Your task to perform on an android device: toggle translation in the chrome app Image 0: 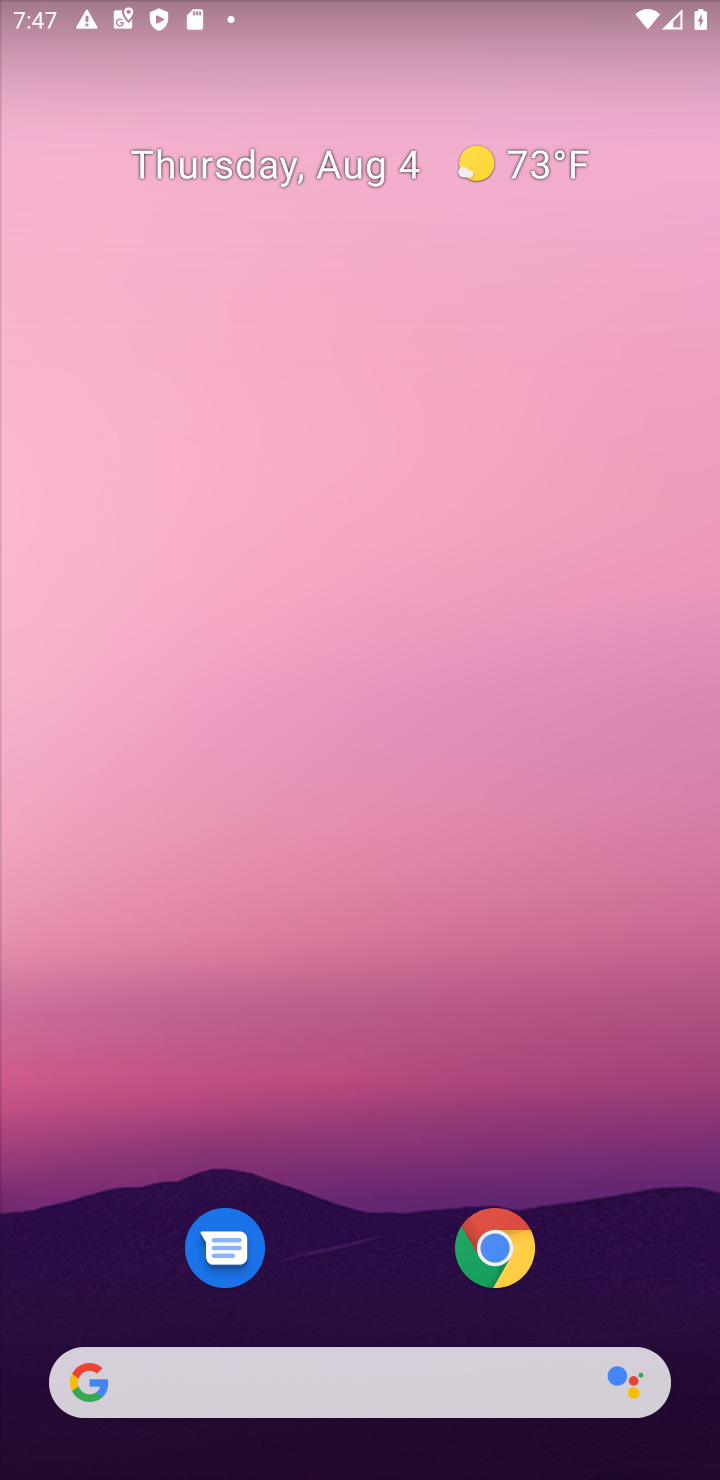
Step 0: press home button
Your task to perform on an android device: toggle translation in the chrome app Image 1: 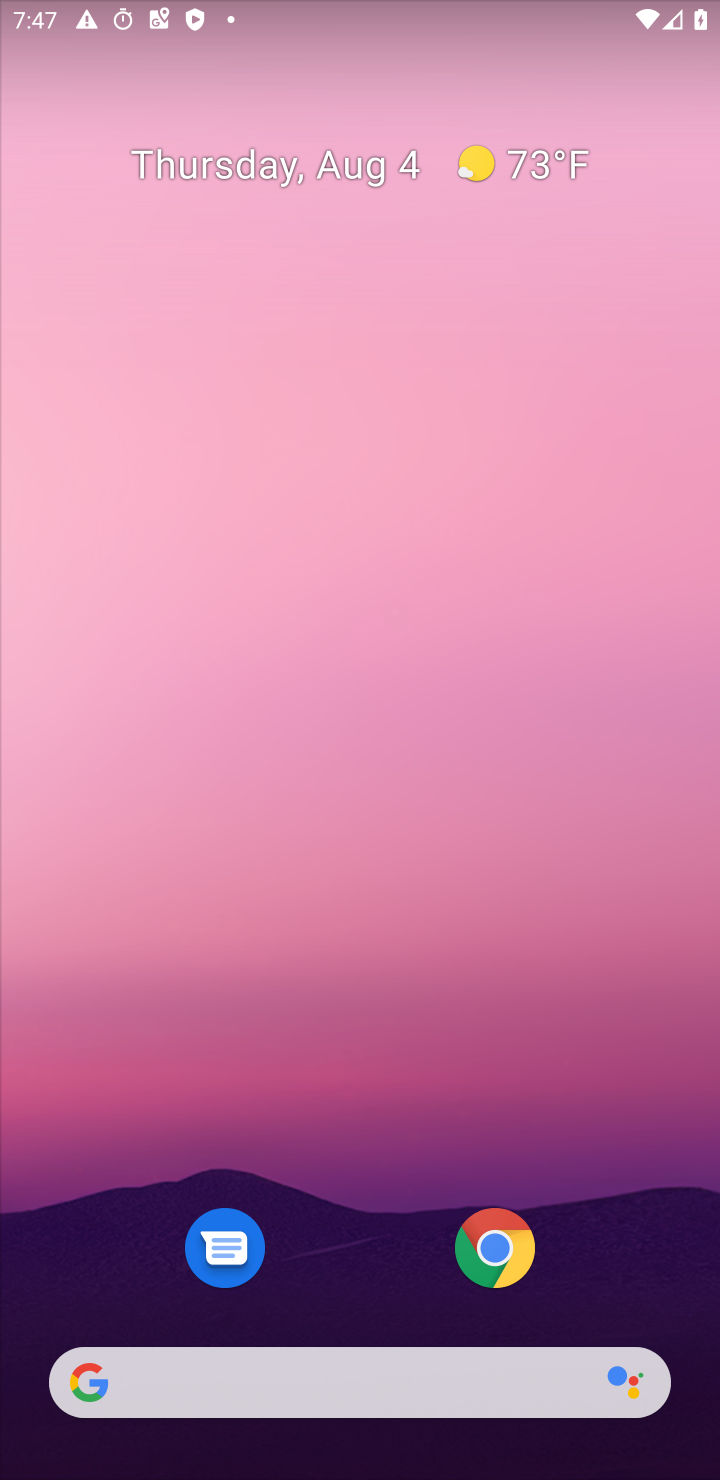
Step 1: drag from (368, 1393) to (307, 373)
Your task to perform on an android device: toggle translation in the chrome app Image 2: 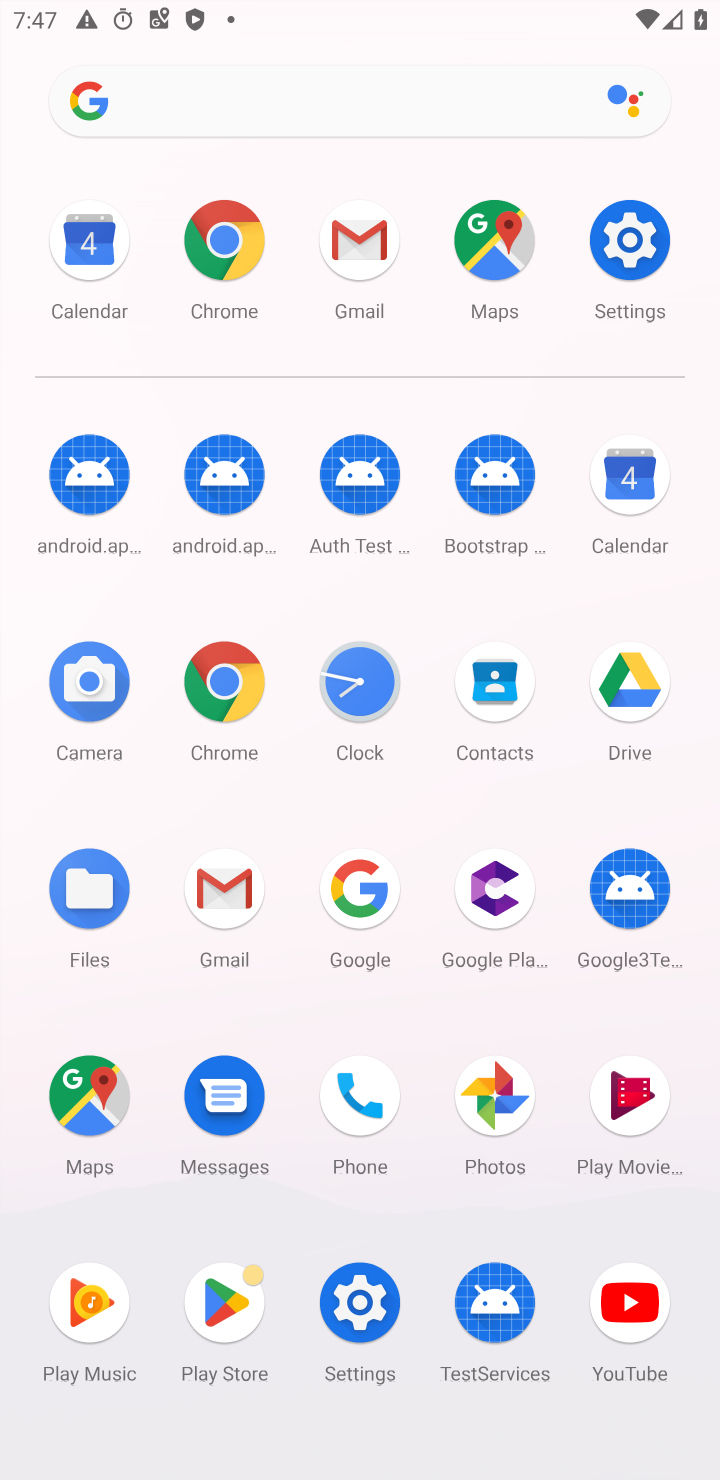
Step 2: click (239, 659)
Your task to perform on an android device: toggle translation in the chrome app Image 3: 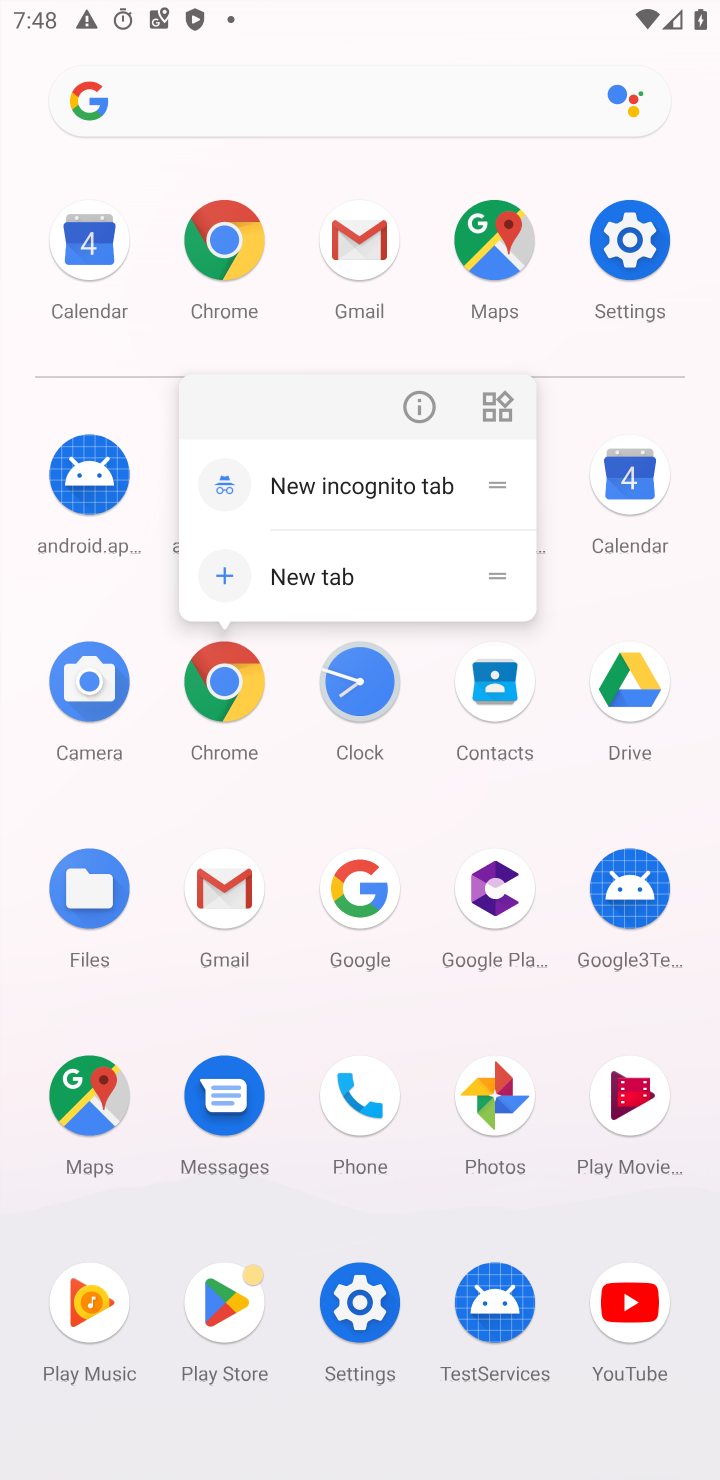
Step 3: click (237, 240)
Your task to perform on an android device: toggle translation in the chrome app Image 4: 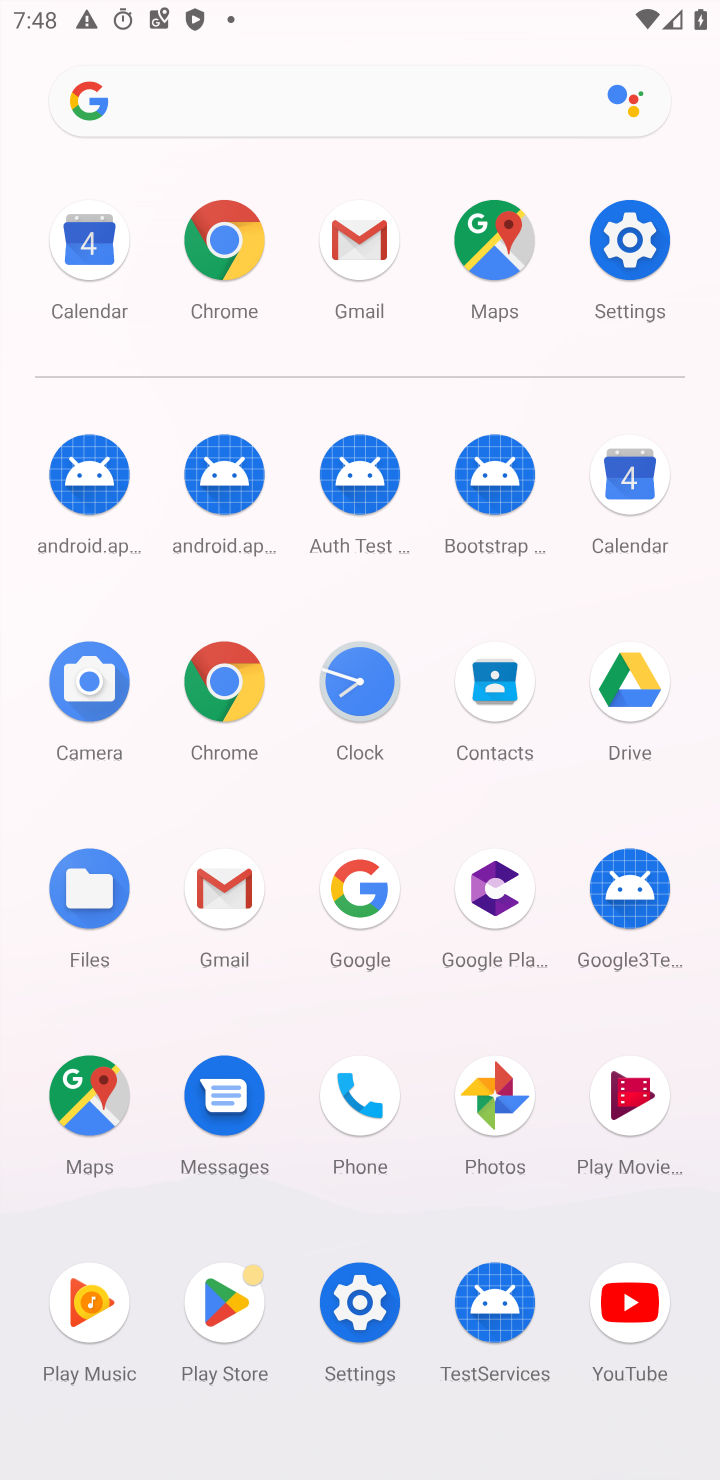
Step 4: click (234, 236)
Your task to perform on an android device: toggle translation in the chrome app Image 5: 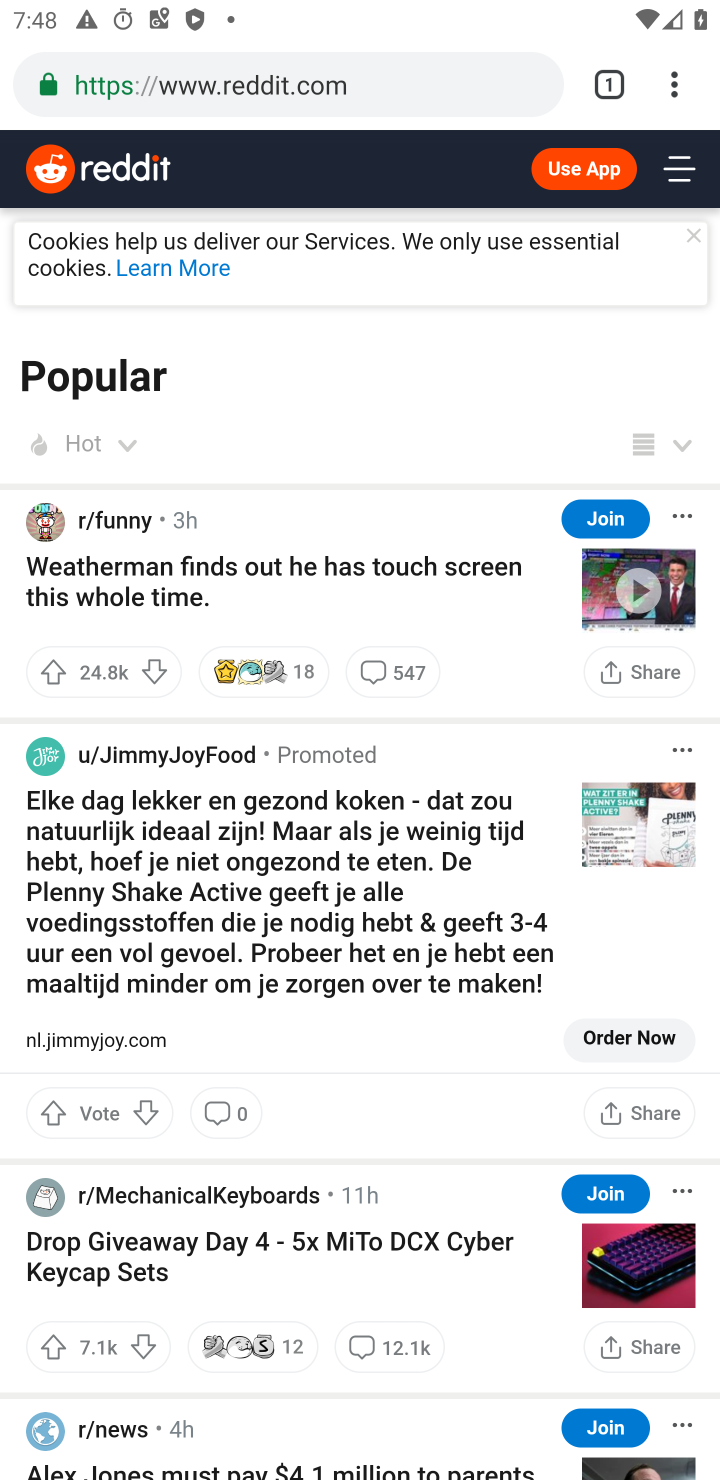
Step 5: click (679, 92)
Your task to perform on an android device: toggle translation in the chrome app Image 6: 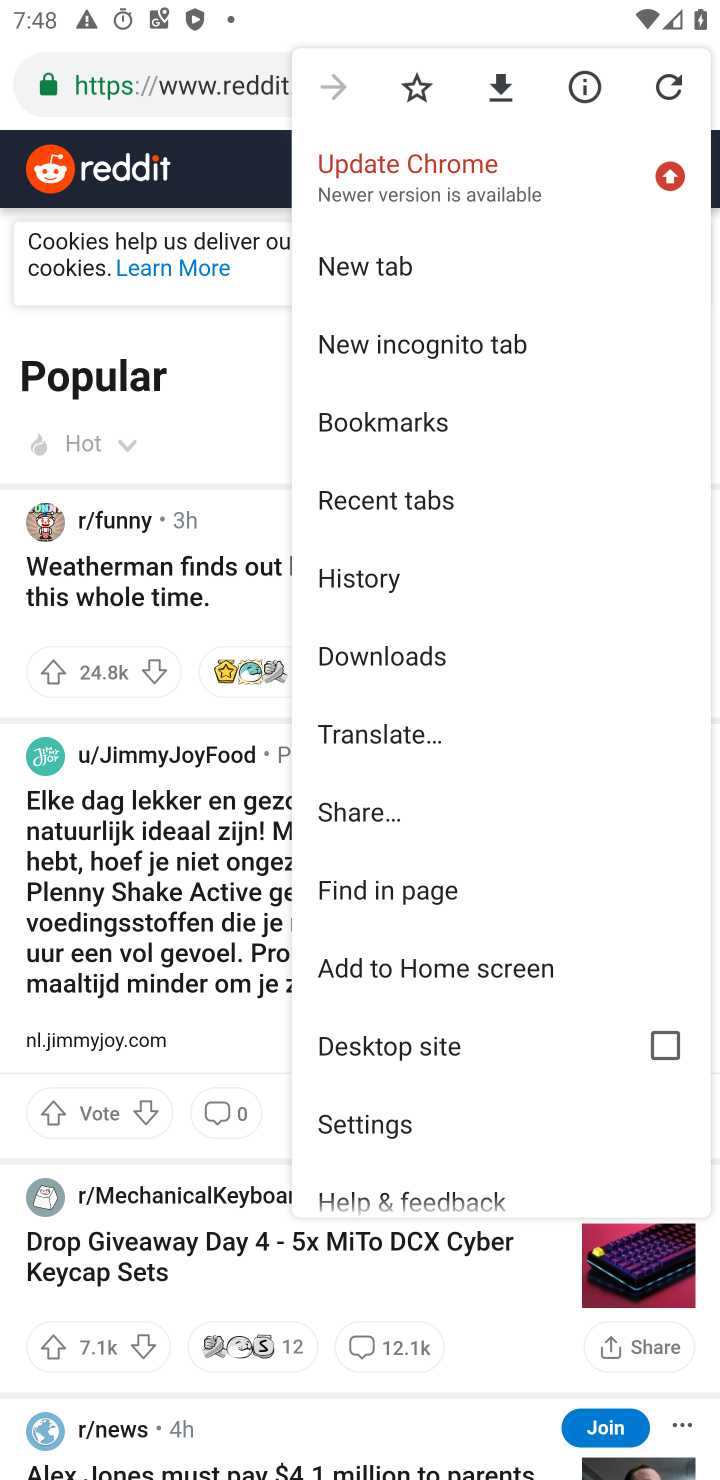
Step 6: click (362, 1114)
Your task to perform on an android device: toggle translation in the chrome app Image 7: 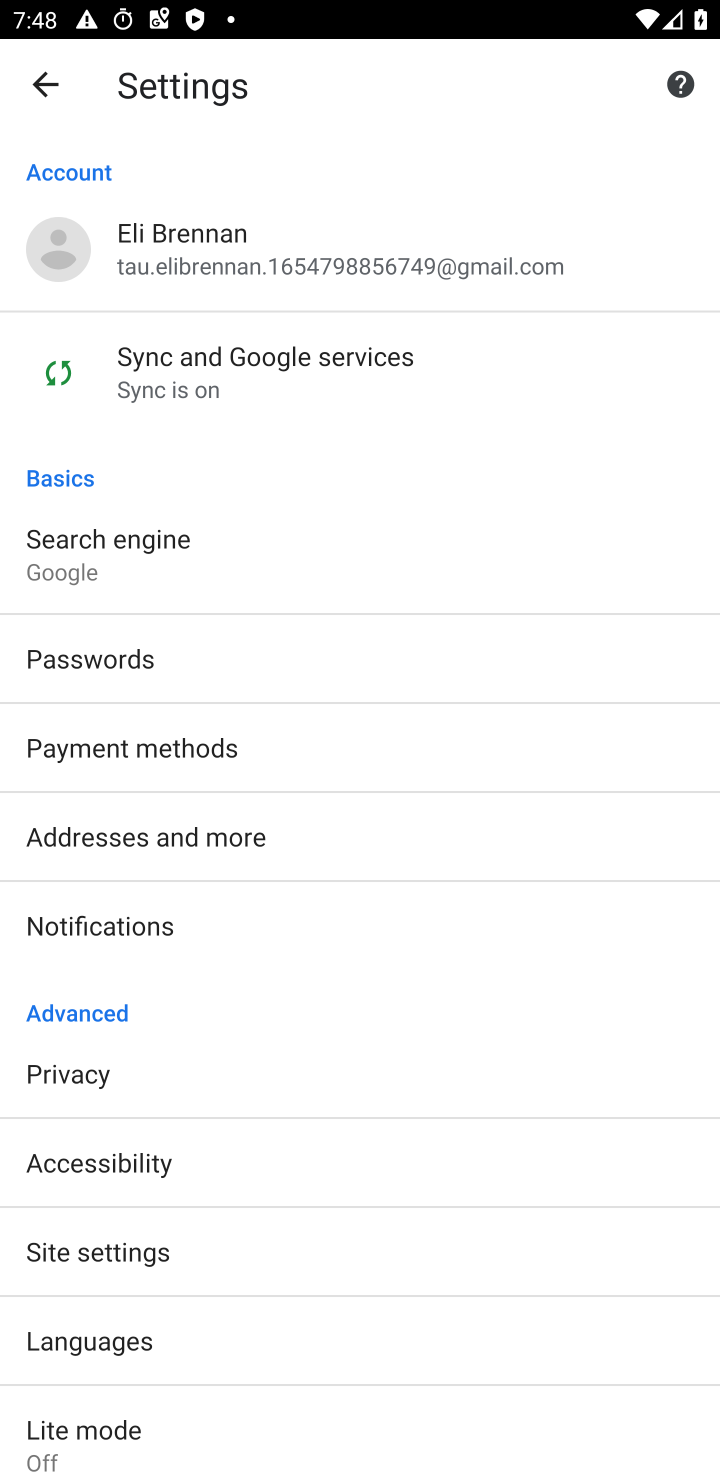
Step 7: drag from (362, 1116) to (340, 866)
Your task to perform on an android device: toggle translation in the chrome app Image 8: 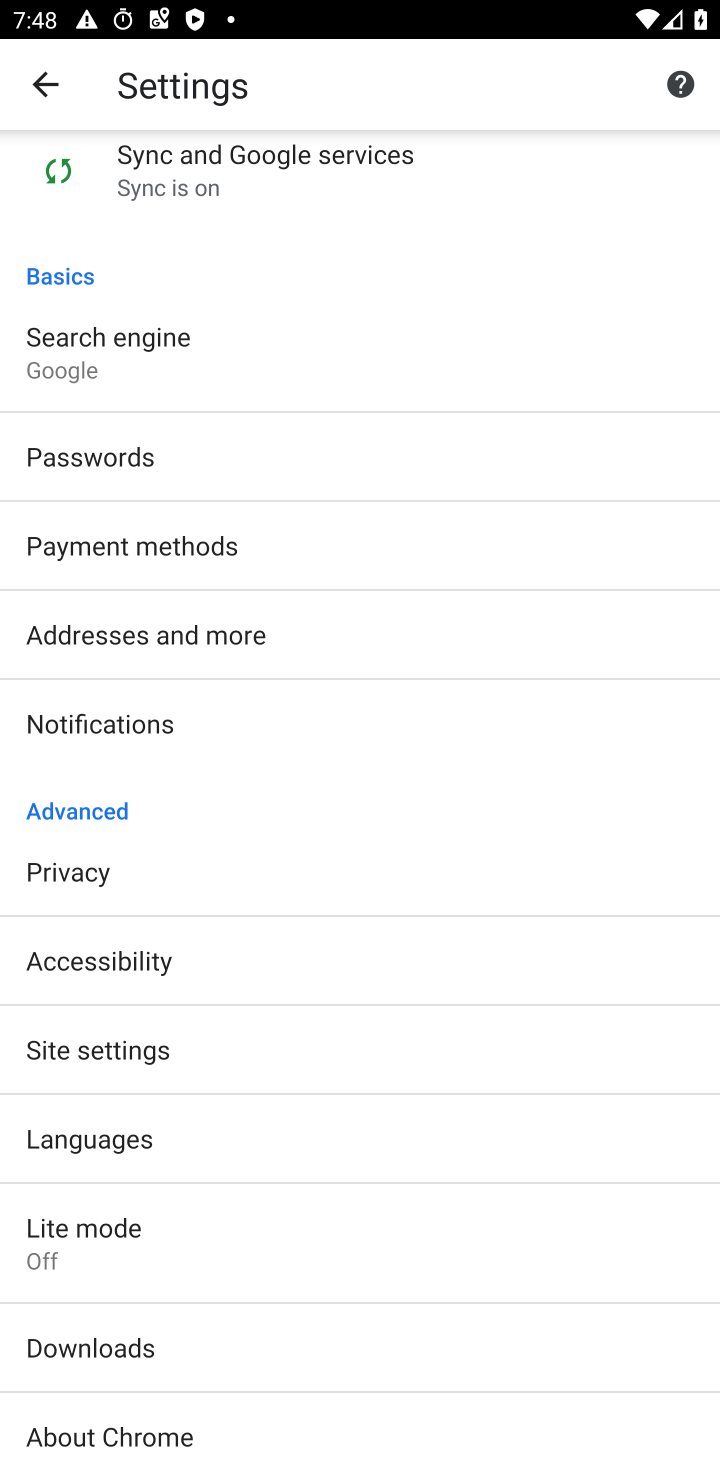
Step 8: click (167, 1134)
Your task to perform on an android device: toggle translation in the chrome app Image 9: 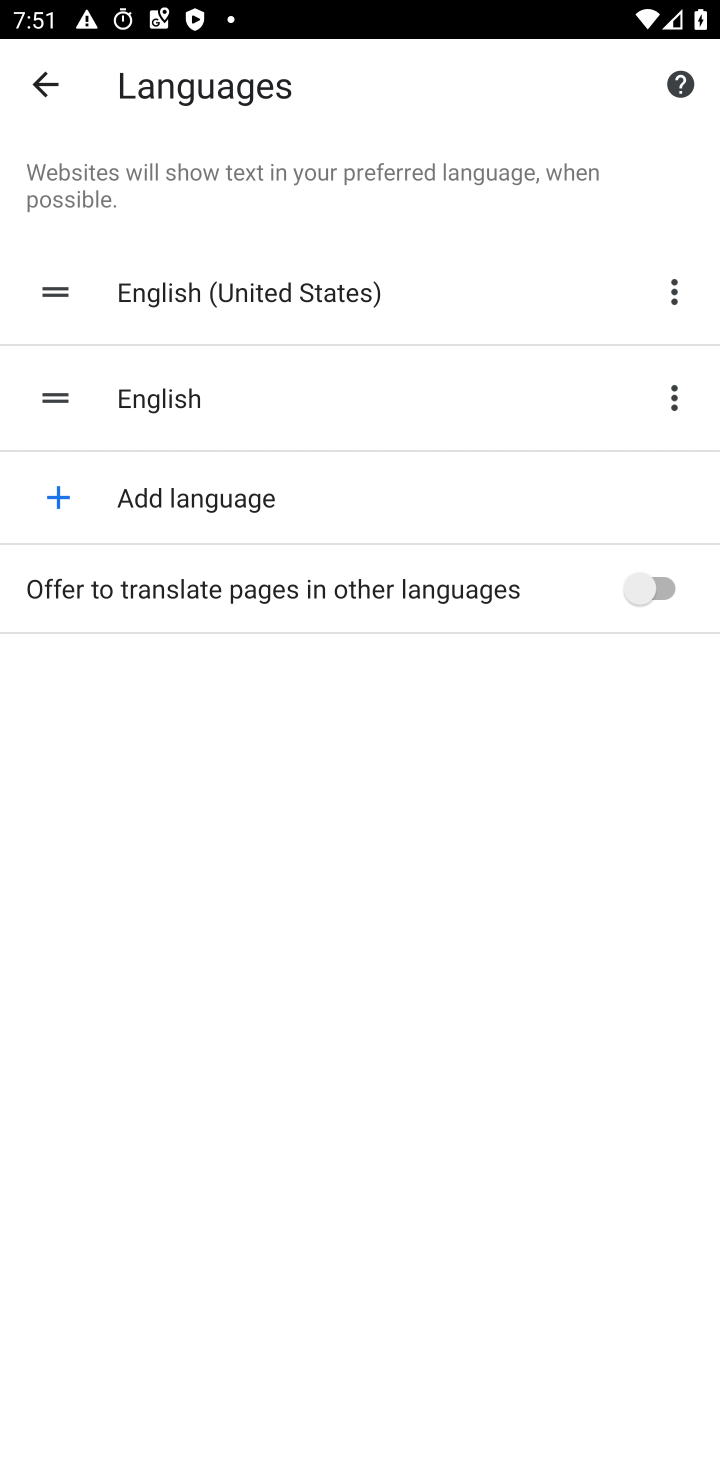
Step 9: task complete